Your task to perform on an android device: manage bookmarks in the chrome app Image 0: 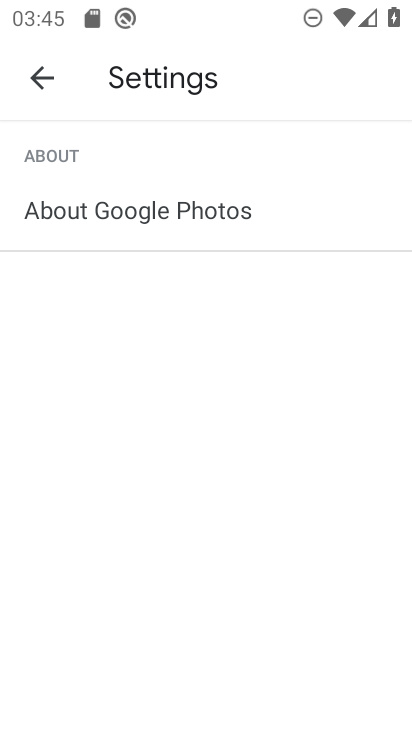
Step 0: press home button
Your task to perform on an android device: manage bookmarks in the chrome app Image 1: 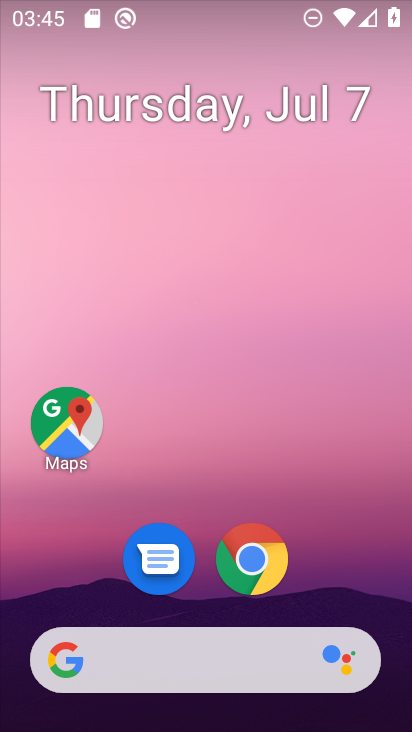
Step 1: drag from (374, 561) to (361, 180)
Your task to perform on an android device: manage bookmarks in the chrome app Image 2: 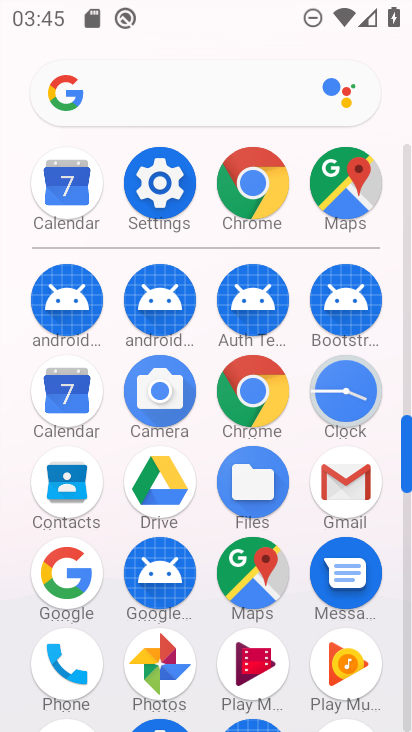
Step 2: click (273, 378)
Your task to perform on an android device: manage bookmarks in the chrome app Image 3: 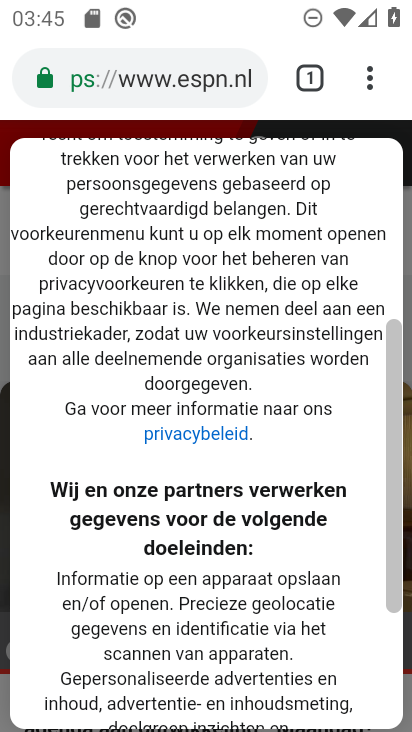
Step 3: click (372, 83)
Your task to perform on an android device: manage bookmarks in the chrome app Image 4: 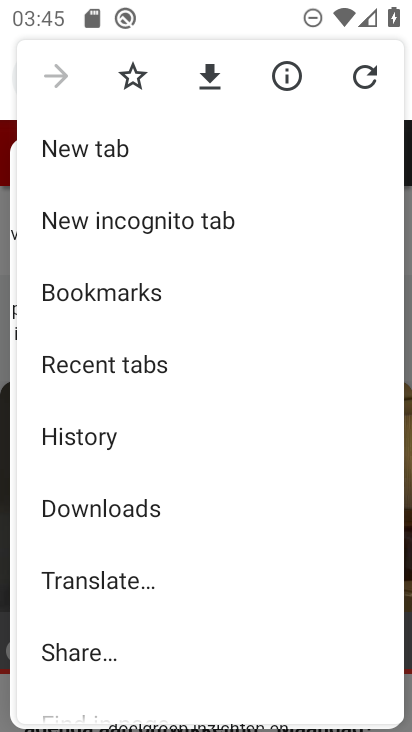
Step 4: click (185, 299)
Your task to perform on an android device: manage bookmarks in the chrome app Image 5: 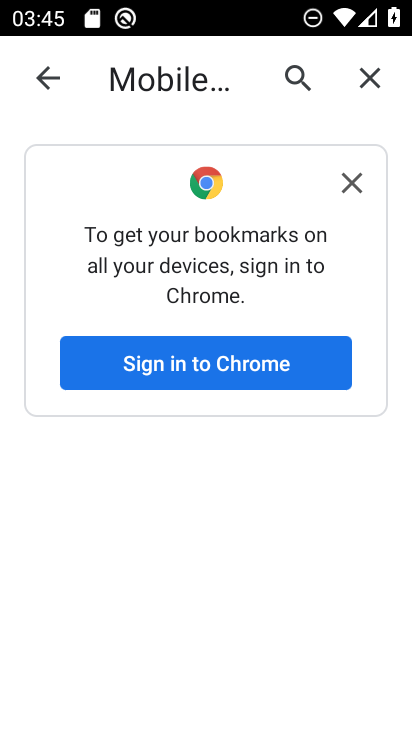
Step 5: click (345, 183)
Your task to perform on an android device: manage bookmarks in the chrome app Image 6: 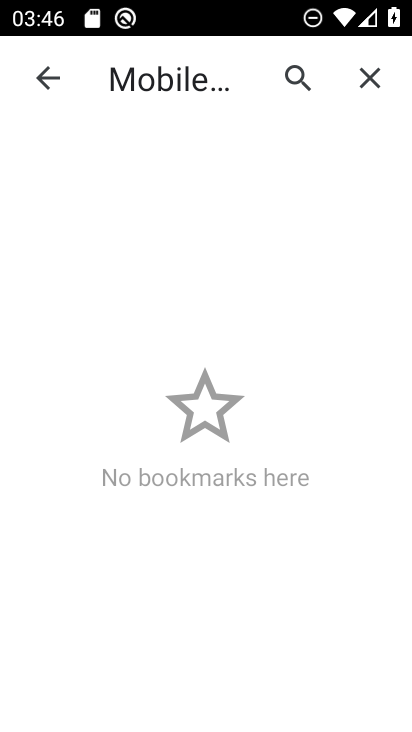
Step 6: task complete